Your task to perform on an android device: turn off priority inbox in the gmail app Image 0: 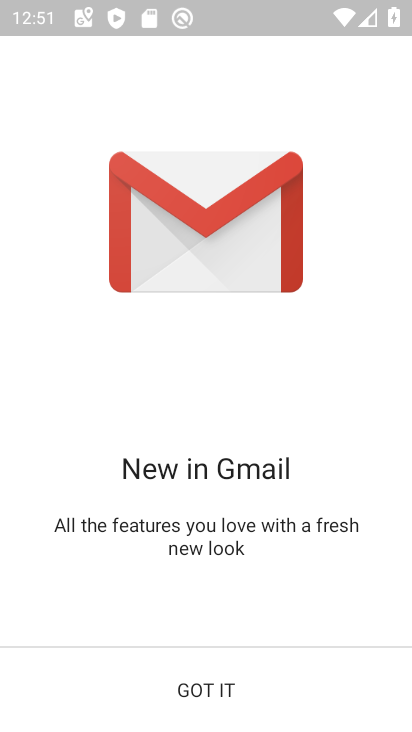
Step 0: press back button
Your task to perform on an android device: turn off priority inbox in the gmail app Image 1: 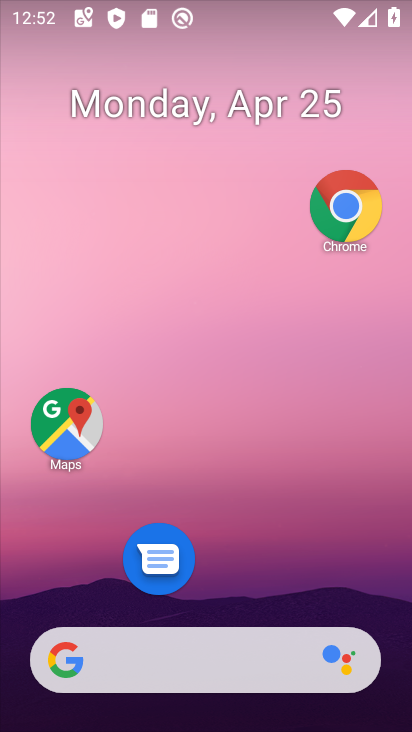
Step 1: drag from (252, 504) to (250, 158)
Your task to perform on an android device: turn off priority inbox in the gmail app Image 2: 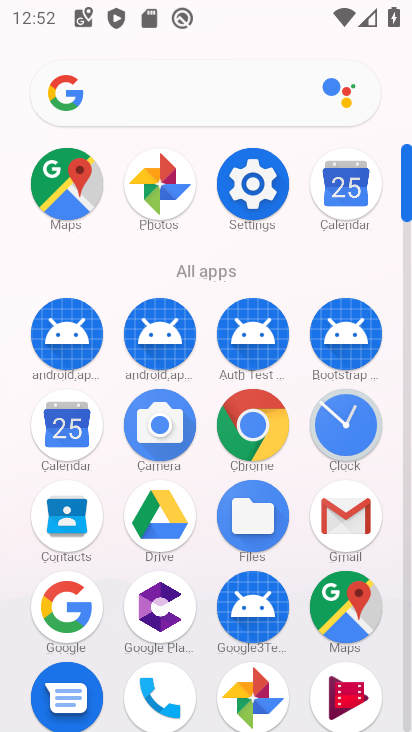
Step 2: click (343, 518)
Your task to perform on an android device: turn off priority inbox in the gmail app Image 3: 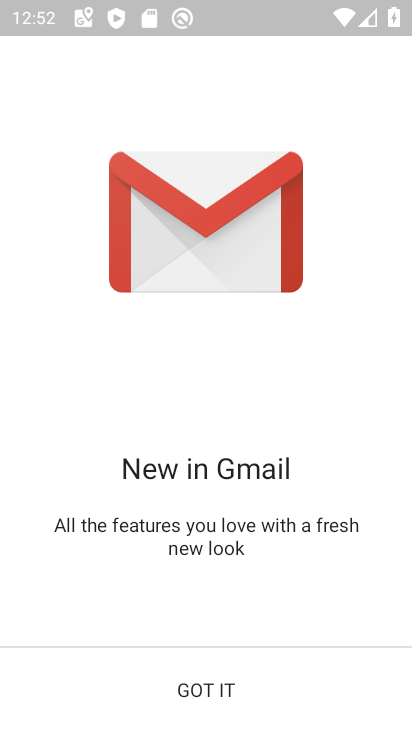
Step 3: click (206, 690)
Your task to perform on an android device: turn off priority inbox in the gmail app Image 4: 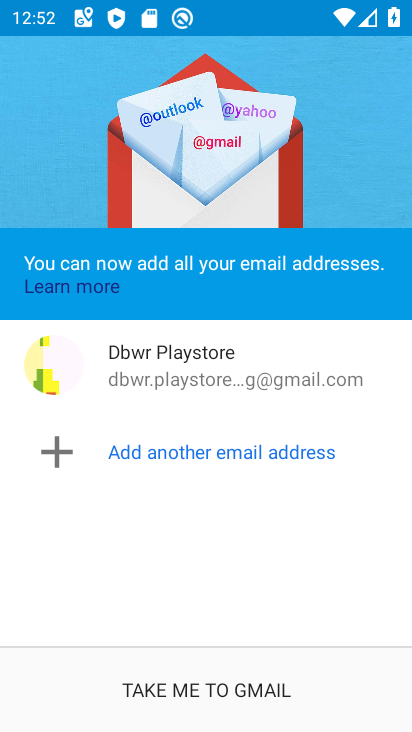
Step 4: click (195, 688)
Your task to perform on an android device: turn off priority inbox in the gmail app Image 5: 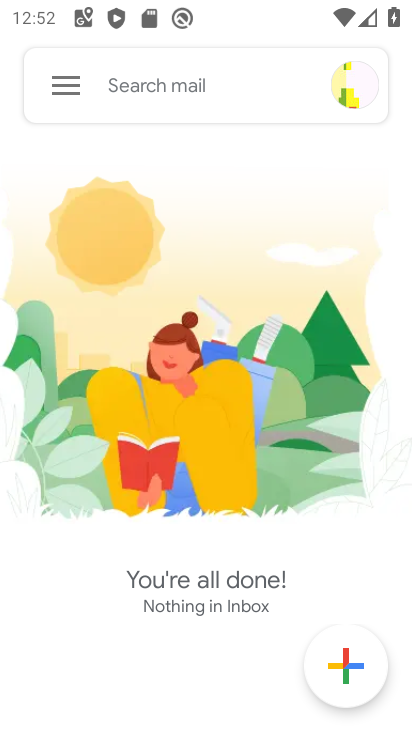
Step 5: click (53, 86)
Your task to perform on an android device: turn off priority inbox in the gmail app Image 6: 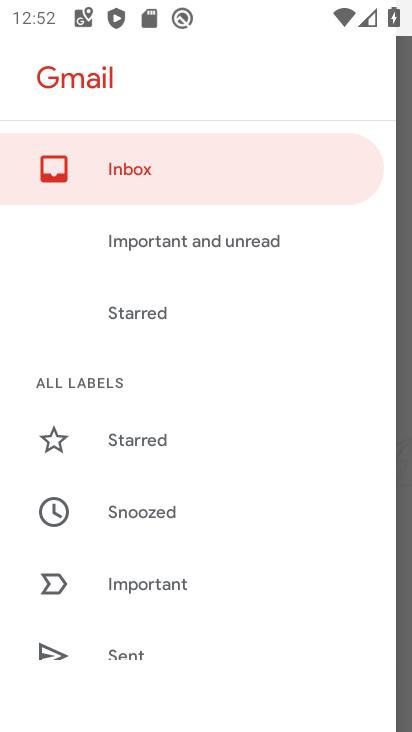
Step 6: drag from (147, 621) to (251, 181)
Your task to perform on an android device: turn off priority inbox in the gmail app Image 7: 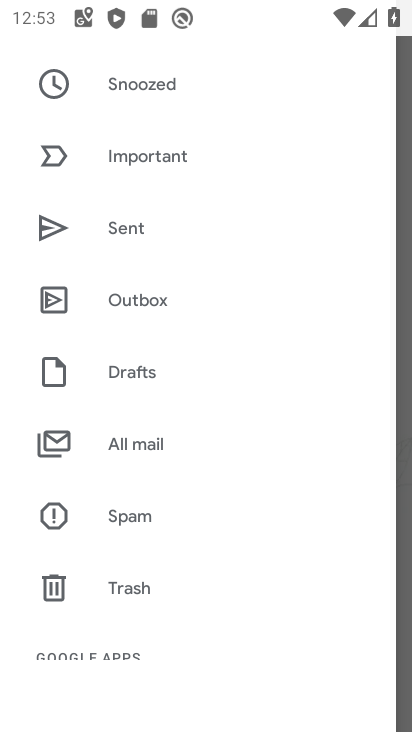
Step 7: drag from (209, 582) to (283, 78)
Your task to perform on an android device: turn off priority inbox in the gmail app Image 8: 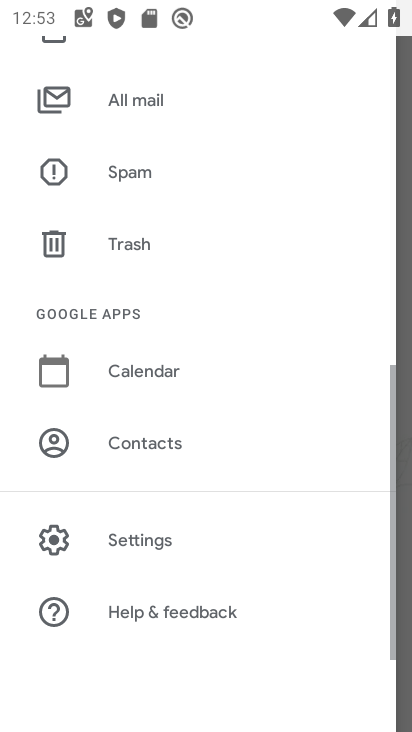
Step 8: click (162, 542)
Your task to perform on an android device: turn off priority inbox in the gmail app Image 9: 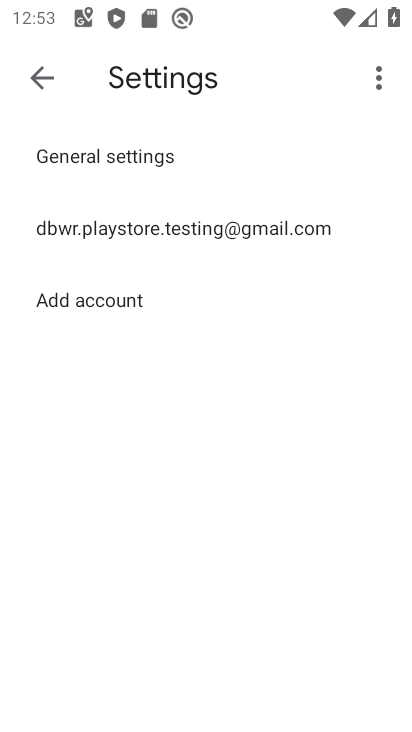
Step 9: click (107, 218)
Your task to perform on an android device: turn off priority inbox in the gmail app Image 10: 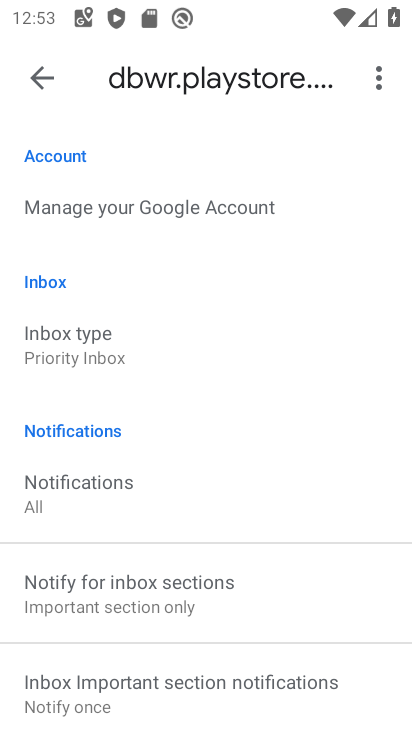
Step 10: click (107, 345)
Your task to perform on an android device: turn off priority inbox in the gmail app Image 11: 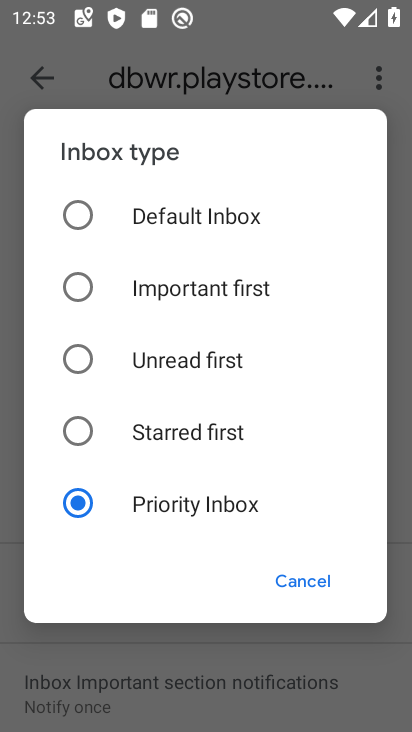
Step 11: click (89, 212)
Your task to perform on an android device: turn off priority inbox in the gmail app Image 12: 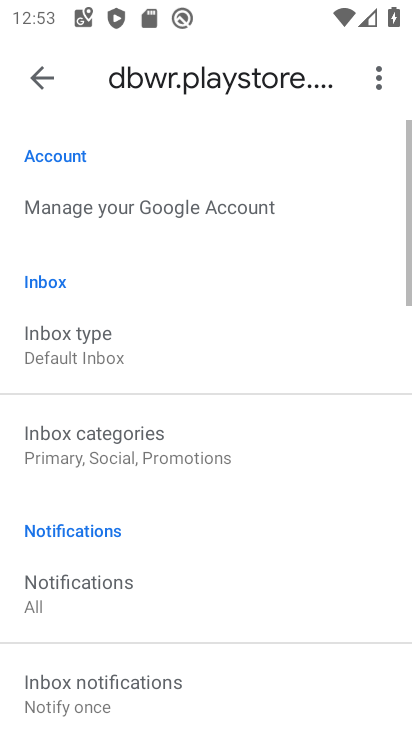
Step 12: task complete